Your task to perform on an android device: Open calendar and show me the first week of next month Image 0: 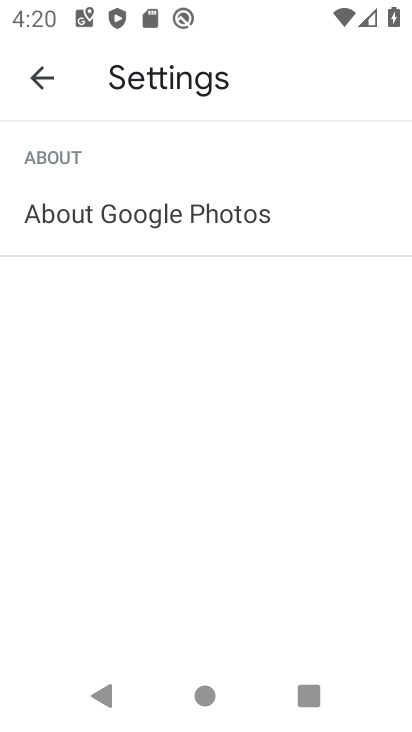
Step 0: press home button
Your task to perform on an android device: Open calendar and show me the first week of next month Image 1: 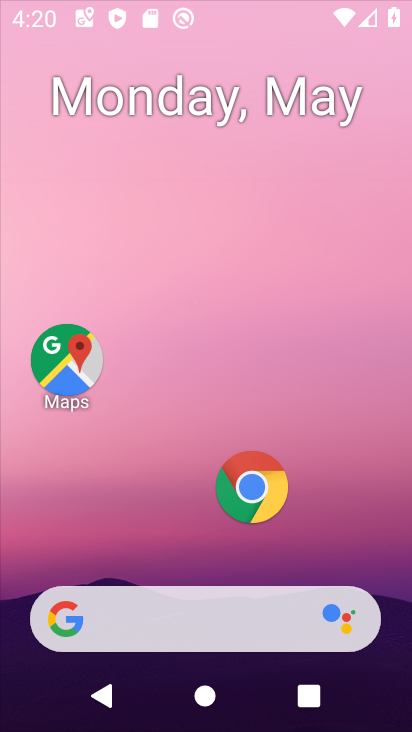
Step 1: drag from (154, 726) to (218, 23)
Your task to perform on an android device: Open calendar and show me the first week of next month Image 2: 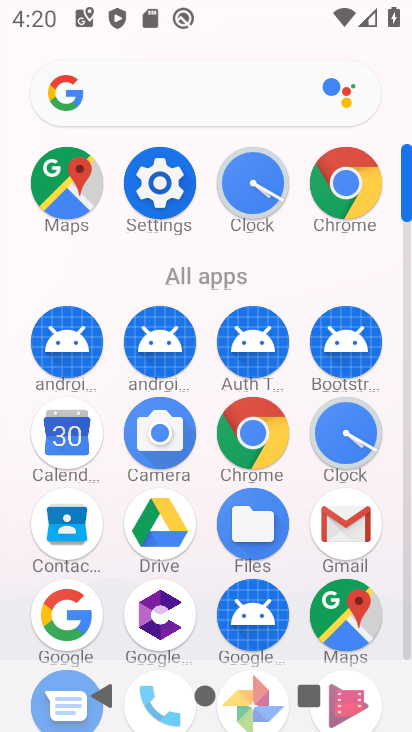
Step 2: click (65, 441)
Your task to perform on an android device: Open calendar and show me the first week of next month Image 3: 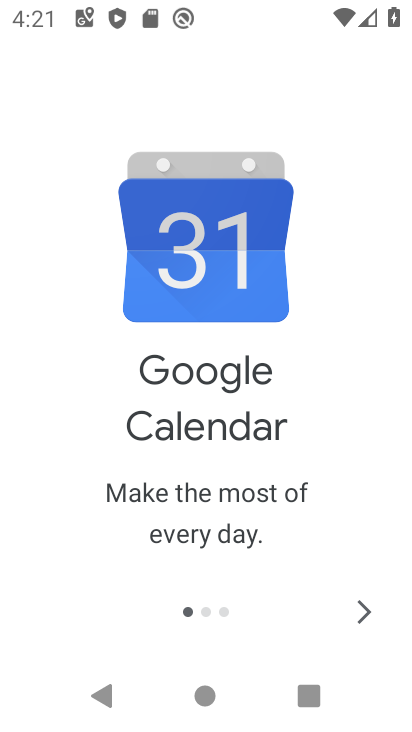
Step 3: click (372, 608)
Your task to perform on an android device: Open calendar and show me the first week of next month Image 4: 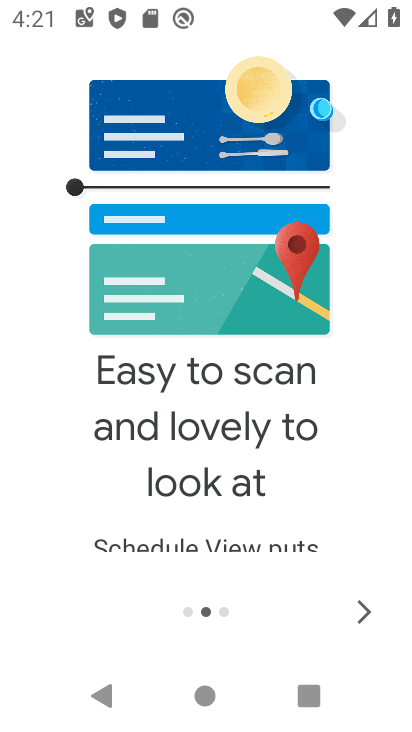
Step 4: click (365, 609)
Your task to perform on an android device: Open calendar and show me the first week of next month Image 5: 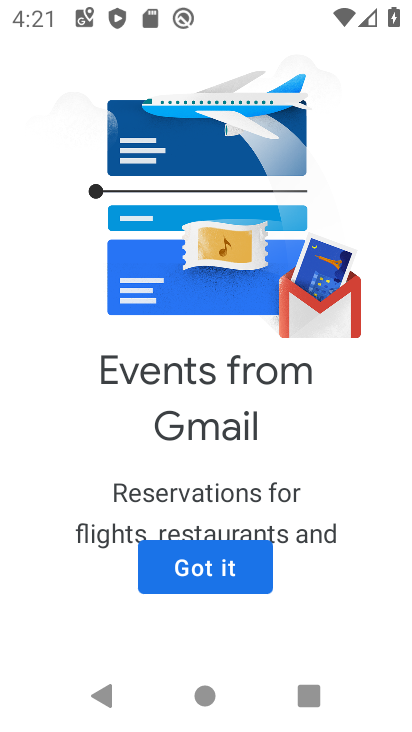
Step 5: click (203, 566)
Your task to perform on an android device: Open calendar and show me the first week of next month Image 6: 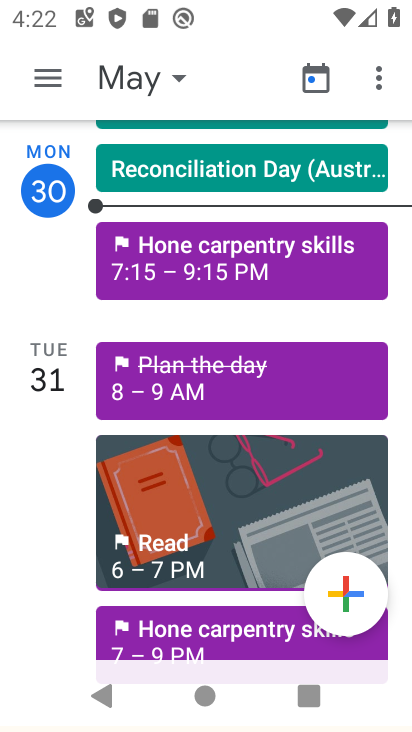
Step 6: click (182, 81)
Your task to perform on an android device: Open calendar and show me the first week of next month Image 7: 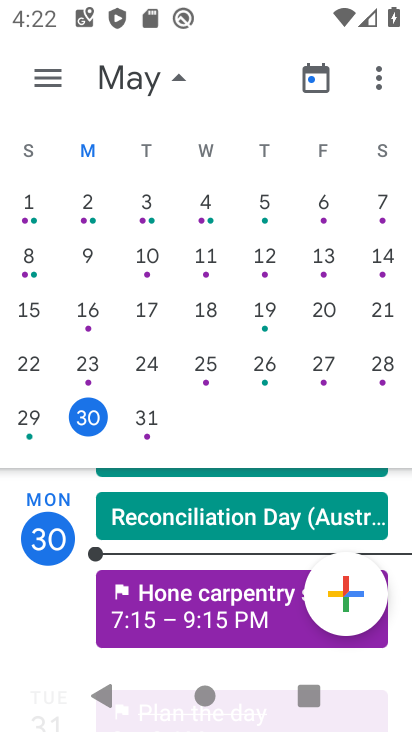
Step 7: drag from (383, 408) to (2, 173)
Your task to perform on an android device: Open calendar and show me the first week of next month Image 8: 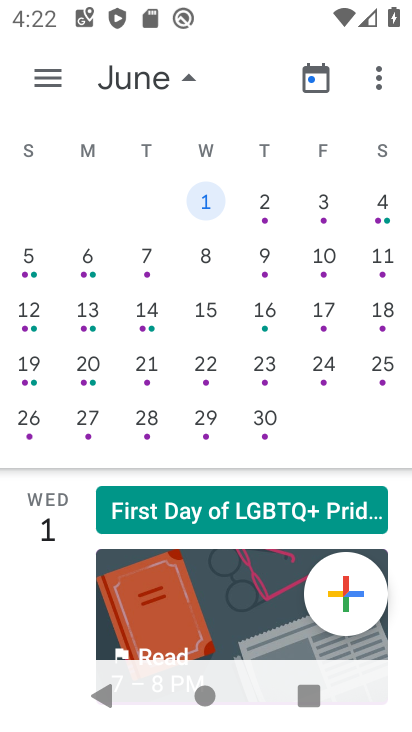
Step 8: click (191, 77)
Your task to perform on an android device: Open calendar and show me the first week of next month Image 9: 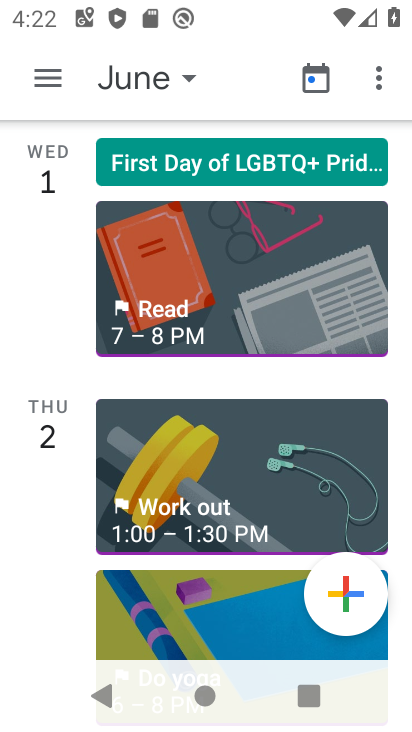
Step 9: click (62, 79)
Your task to perform on an android device: Open calendar and show me the first week of next month Image 10: 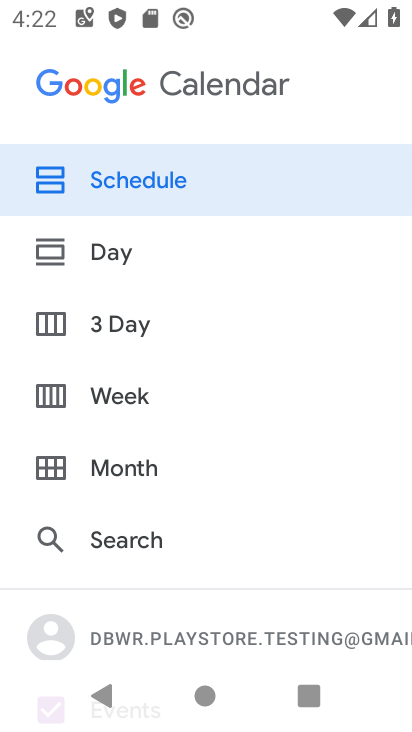
Step 10: click (100, 399)
Your task to perform on an android device: Open calendar and show me the first week of next month Image 11: 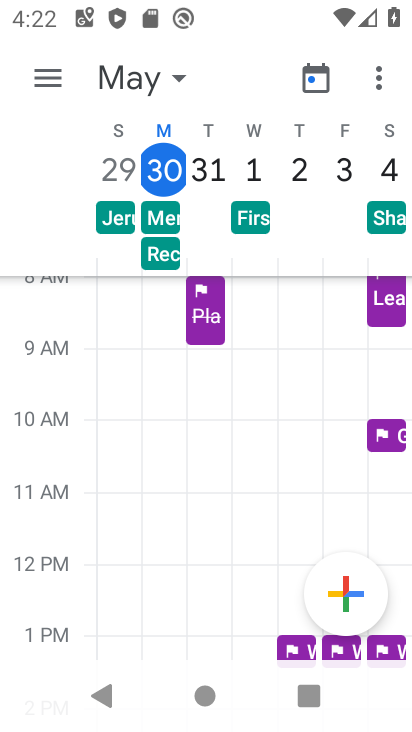
Step 11: task complete